Your task to perform on an android device: turn notification dots on Image 0: 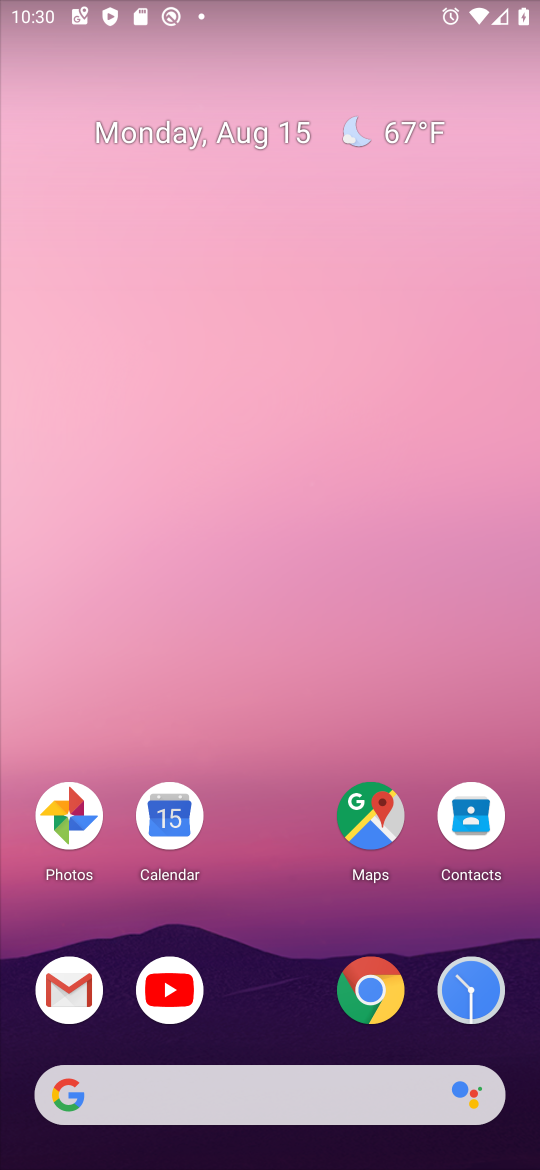
Step 0: drag from (272, 994) to (242, 227)
Your task to perform on an android device: turn notification dots on Image 1: 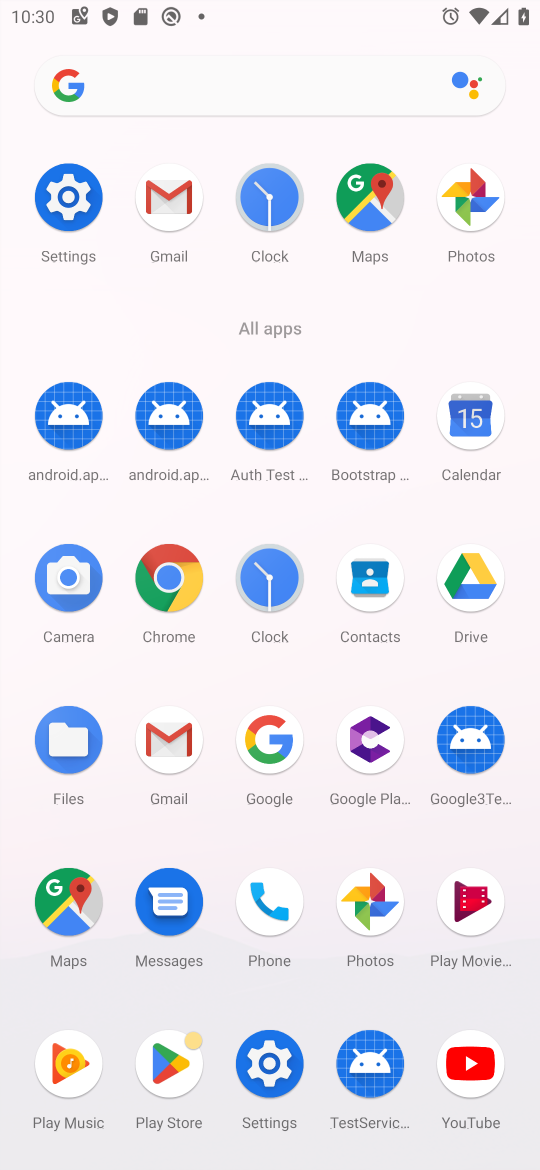
Step 1: click (74, 194)
Your task to perform on an android device: turn notification dots on Image 2: 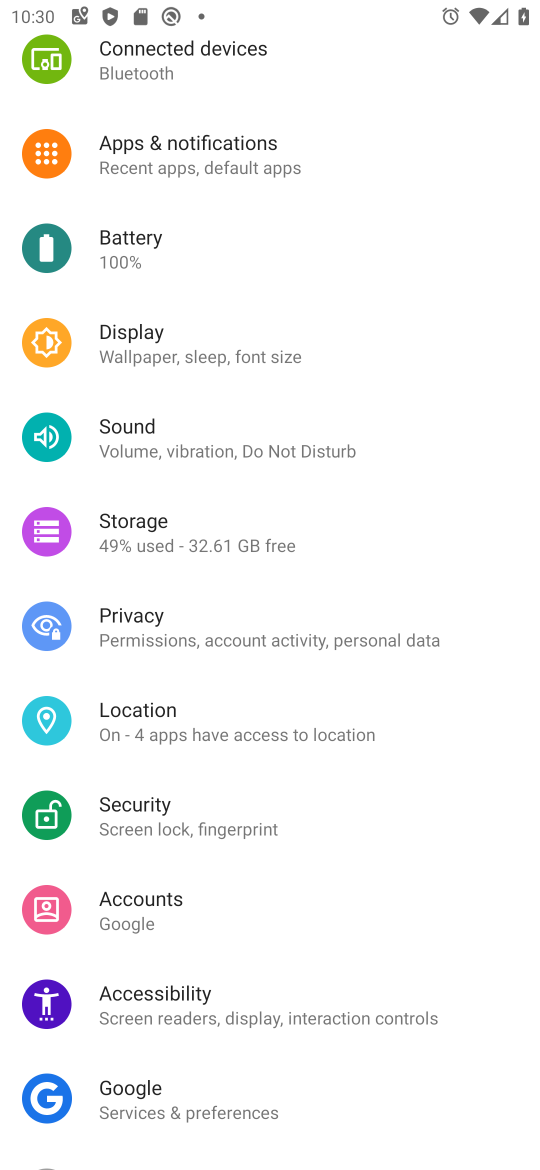
Step 2: click (212, 136)
Your task to perform on an android device: turn notification dots on Image 3: 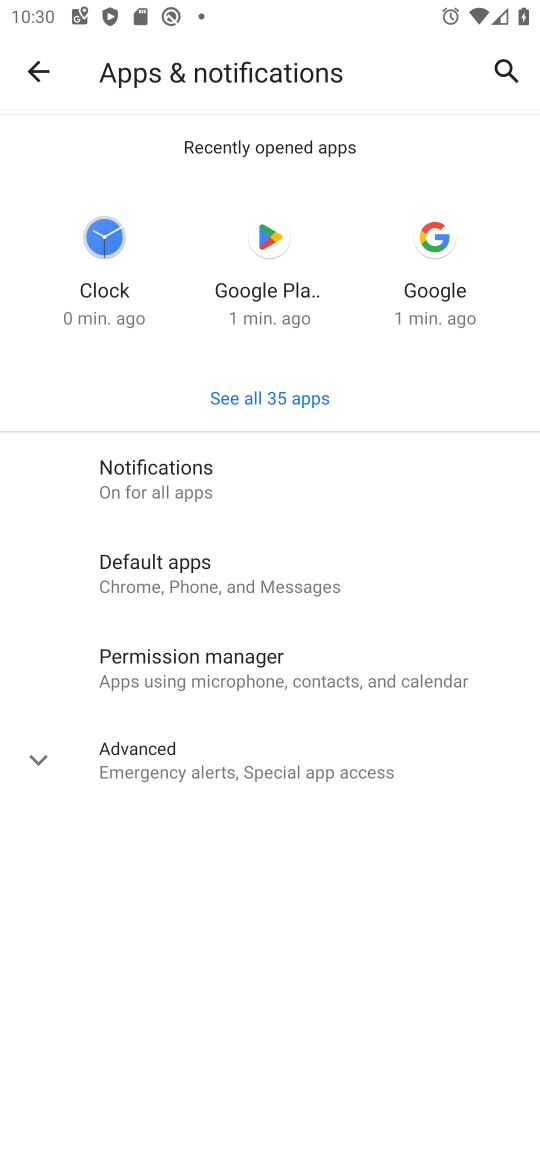
Step 3: click (38, 754)
Your task to perform on an android device: turn notification dots on Image 4: 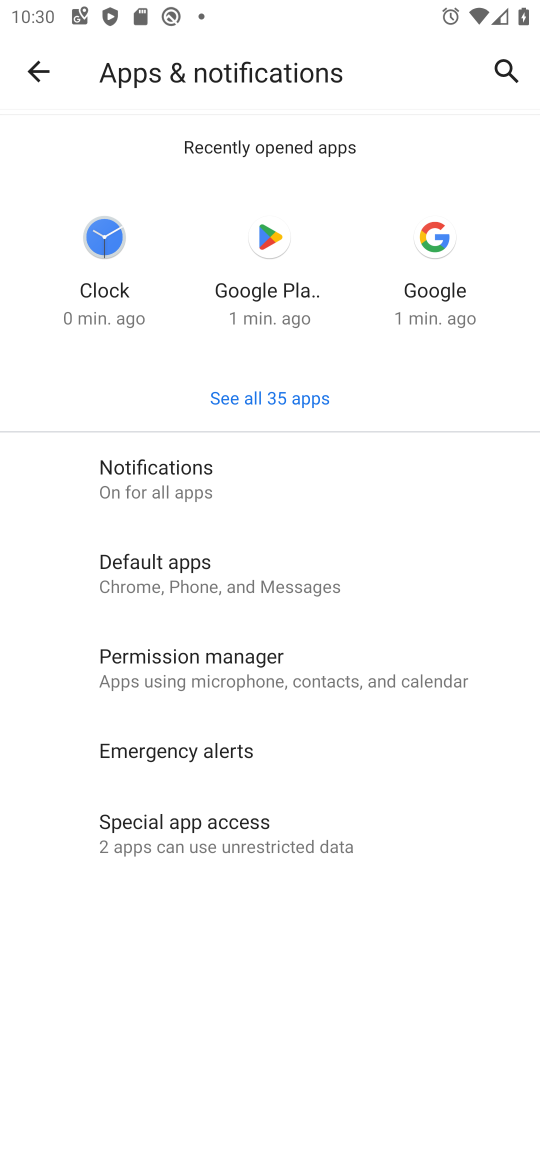
Step 4: click (139, 827)
Your task to perform on an android device: turn notification dots on Image 5: 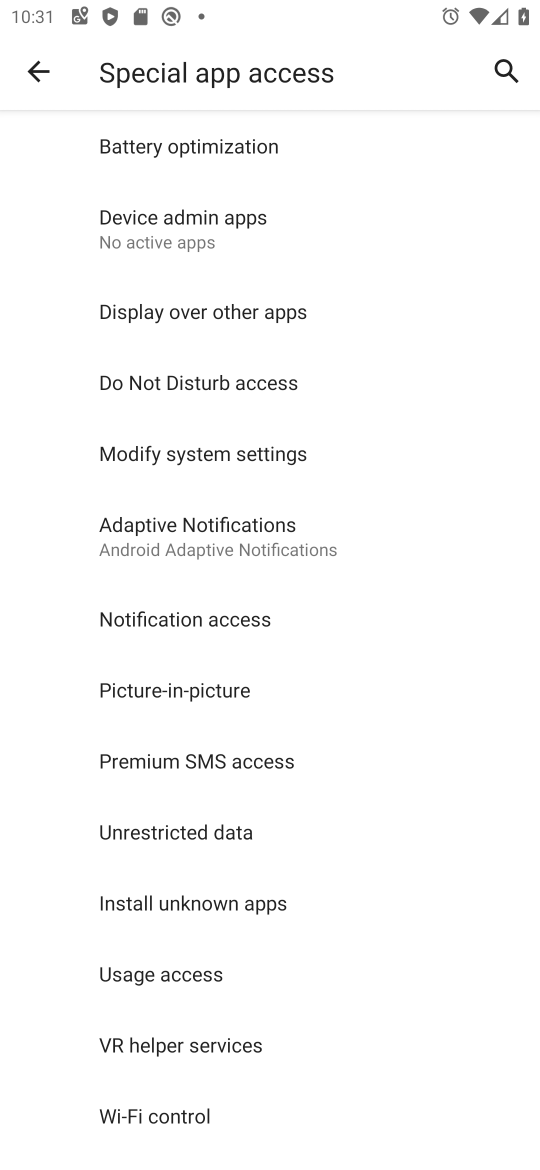
Step 5: click (27, 70)
Your task to perform on an android device: turn notification dots on Image 6: 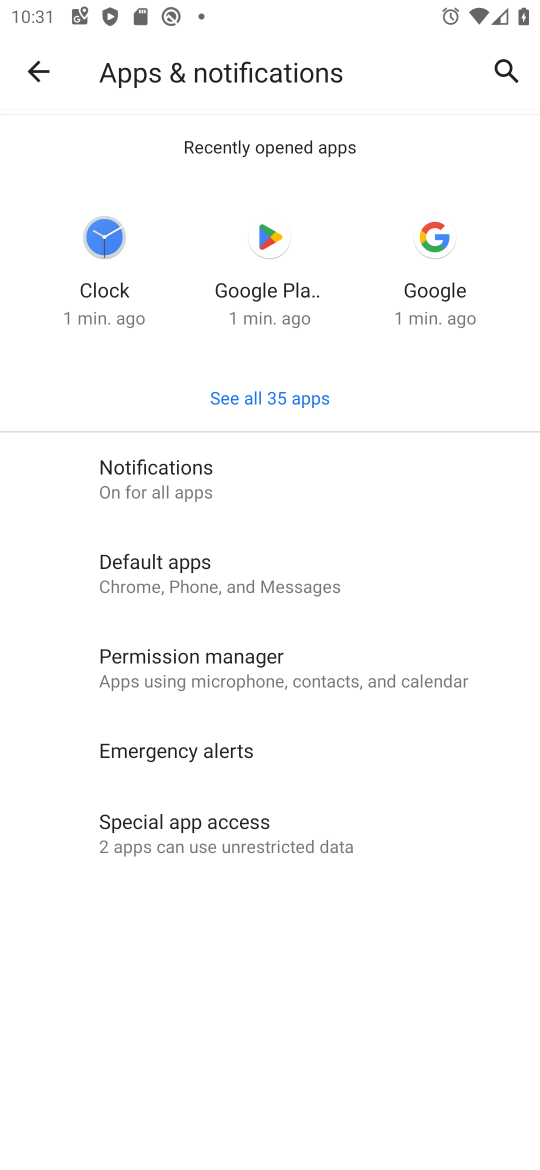
Step 6: click (150, 452)
Your task to perform on an android device: turn notification dots on Image 7: 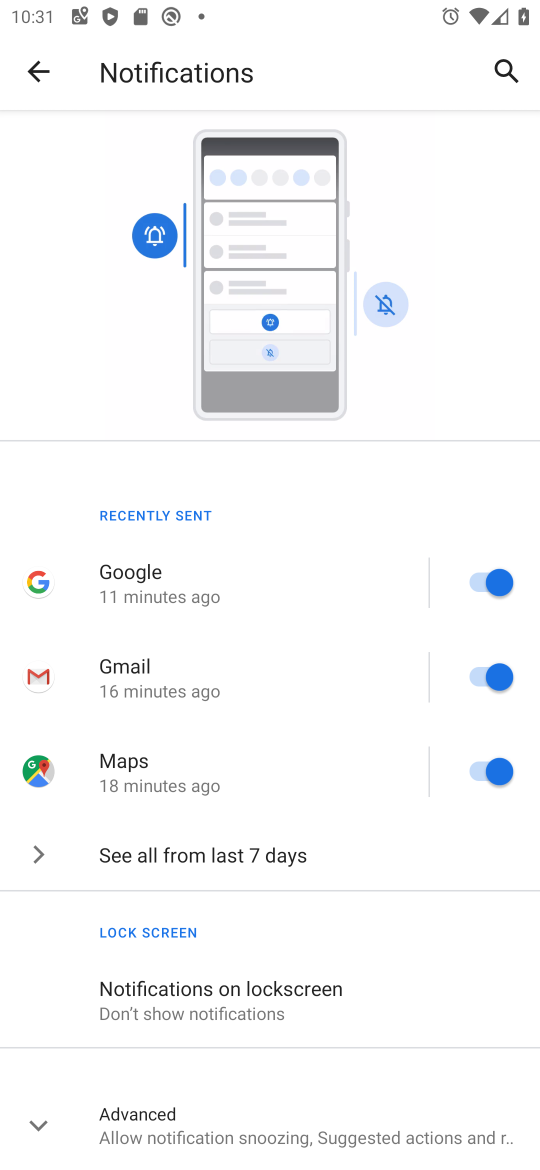
Step 7: click (44, 1126)
Your task to perform on an android device: turn notification dots on Image 8: 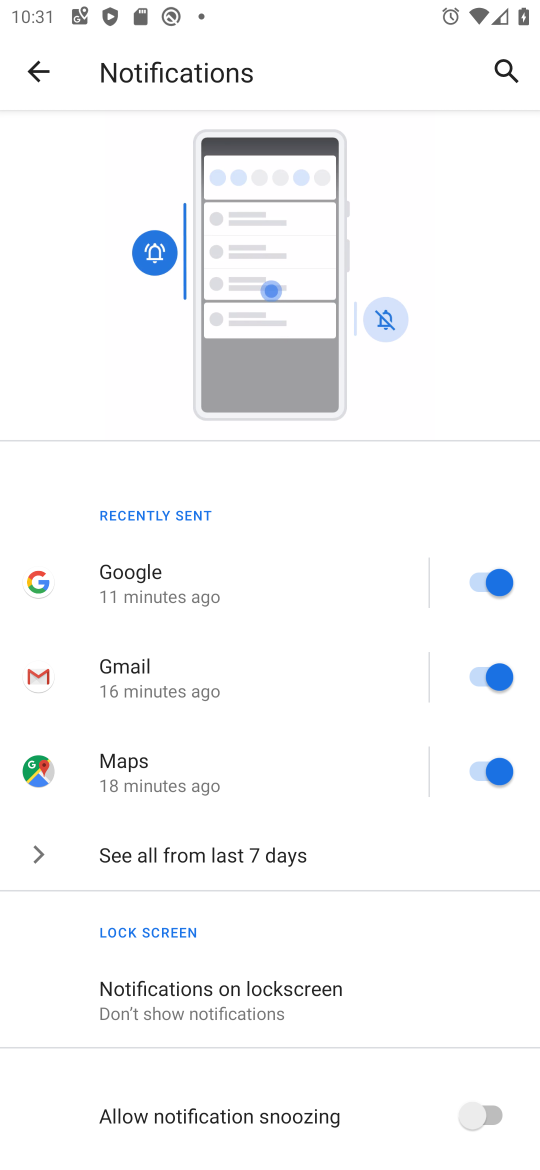
Step 8: task complete